Your task to perform on an android device: turn off wifi Image 0: 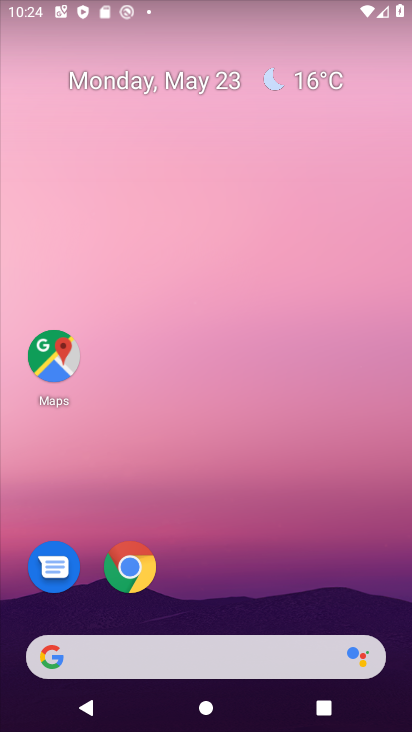
Step 0: drag from (204, 587) to (330, 214)
Your task to perform on an android device: turn off wifi Image 1: 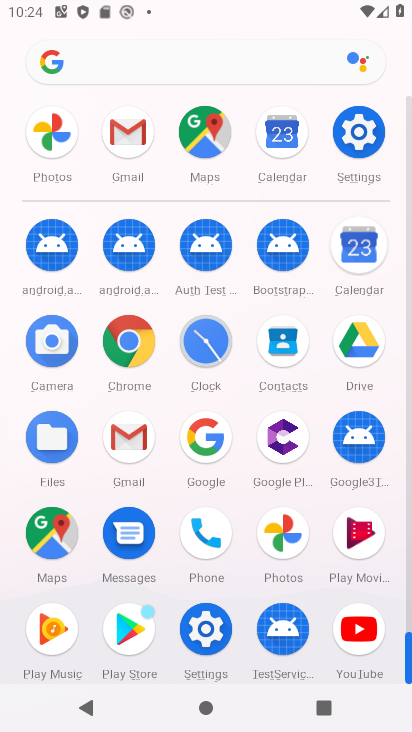
Step 1: click (362, 136)
Your task to perform on an android device: turn off wifi Image 2: 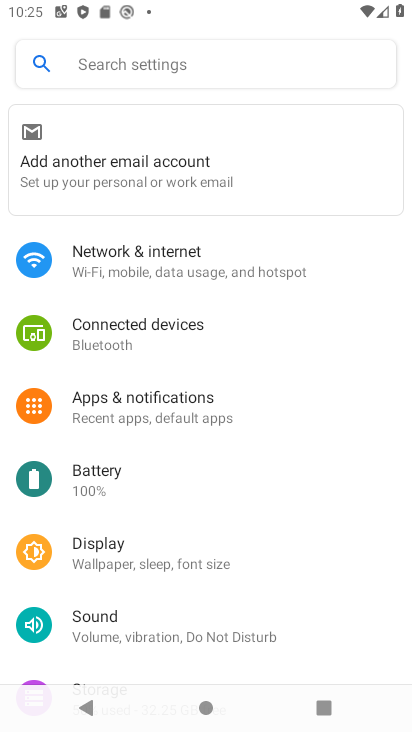
Step 2: click (120, 250)
Your task to perform on an android device: turn off wifi Image 3: 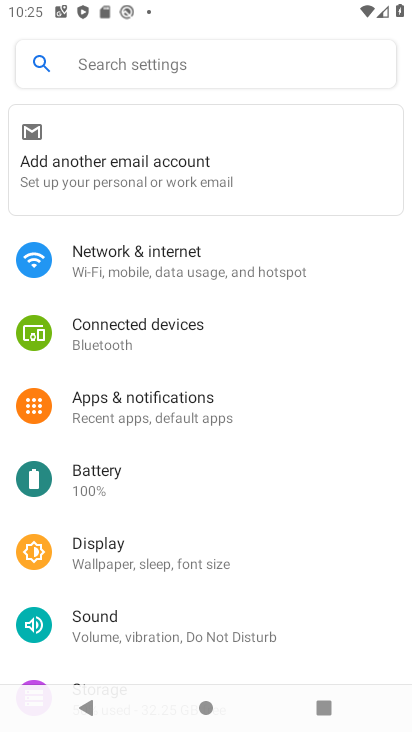
Step 3: click (120, 250)
Your task to perform on an android device: turn off wifi Image 4: 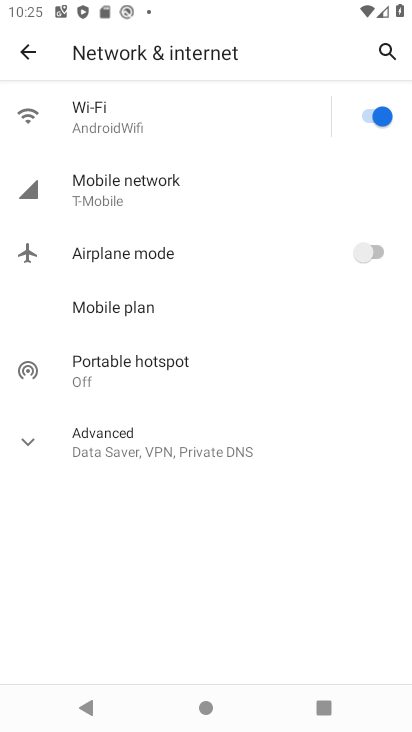
Step 4: click (156, 105)
Your task to perform on an android device: turn off wifi Image 5: 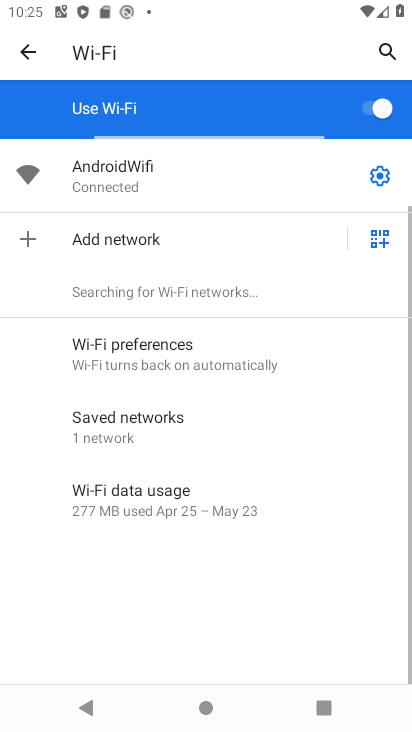
Step 5: click (375, 115)
Your task to perform on an android device: turn off wifi Image 6: 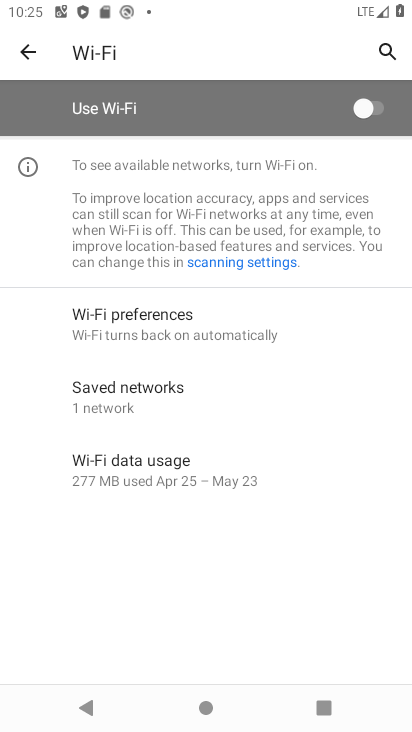
Step 6: task complete